Your task to perform on an android device: toggle javascript in the chrome app Image 0: 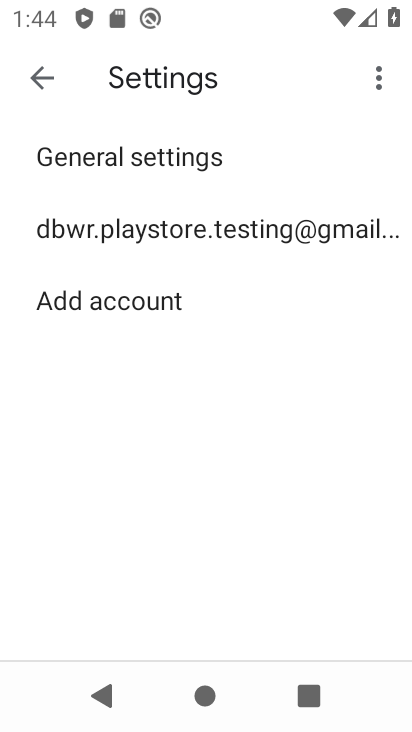
Step 0: press home button
Your task to perform on an android device: toggle javascript in the chrome app Image 1: 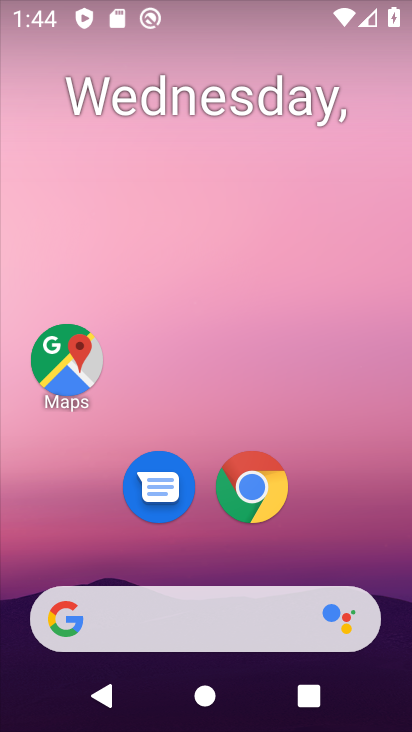
Step 1: click (265, 498)
Your task to perform on an android device: toggle javascript in the chrome app Image 2: 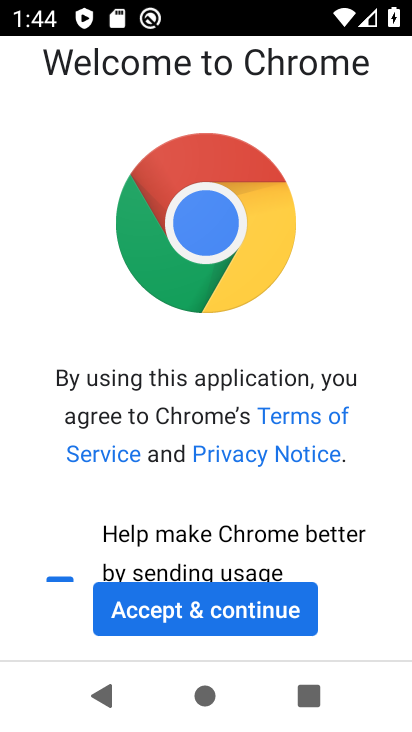
Step 2: click (273, 613)
Your task to perform on an android device: toggle javascript in the chrome app Image 3: 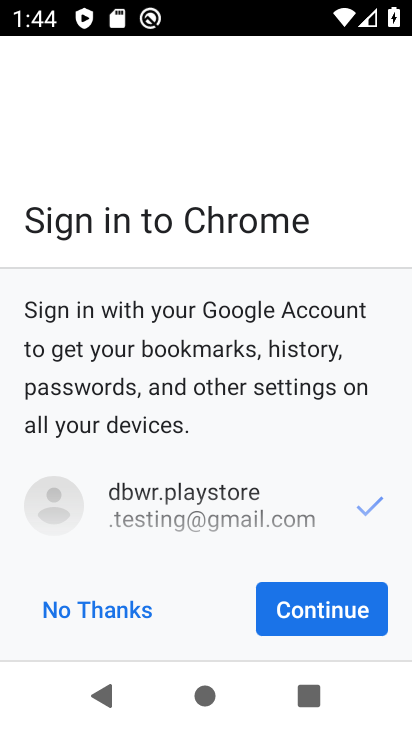
Step 3: click (273, 613)
Your task to perform on an android device: toggle javascript in the chrome app Image 4: 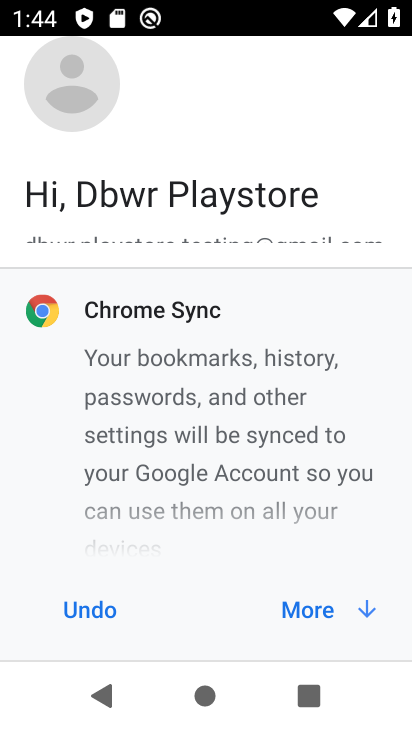
Step 4: click (294, 617)
Your task to perform on an android device: toggle javascript in the chrome app Image 5: 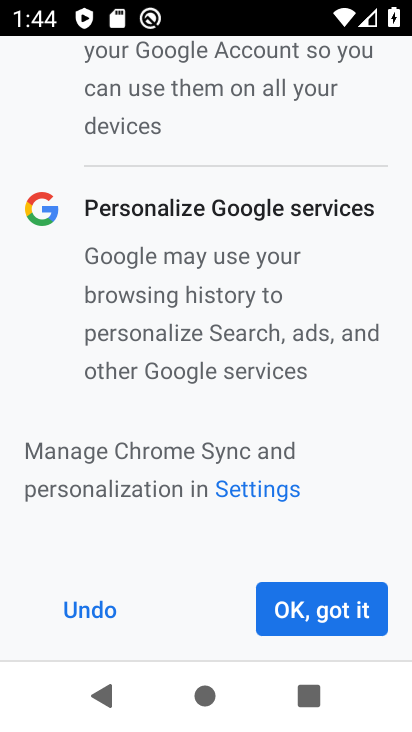
Step 5: click (294, 617)
Your task to perform on an android device: toggle javascript in the chrome app Image 6: 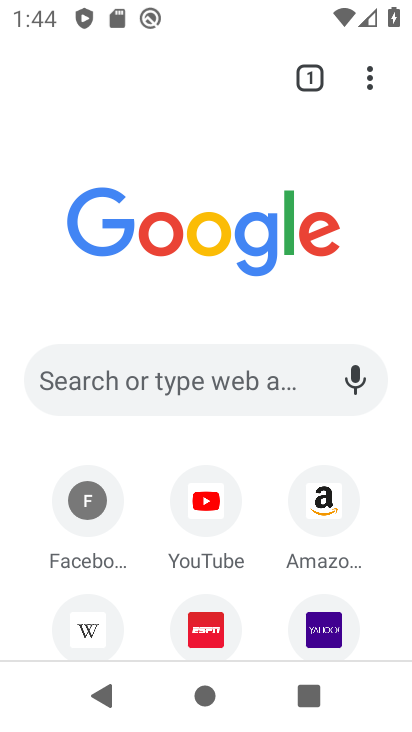
Step 6: drag from (375, 82) to (209, 545)
Your task to perform on an android device: toggle javascript in the chrome app Image 7: 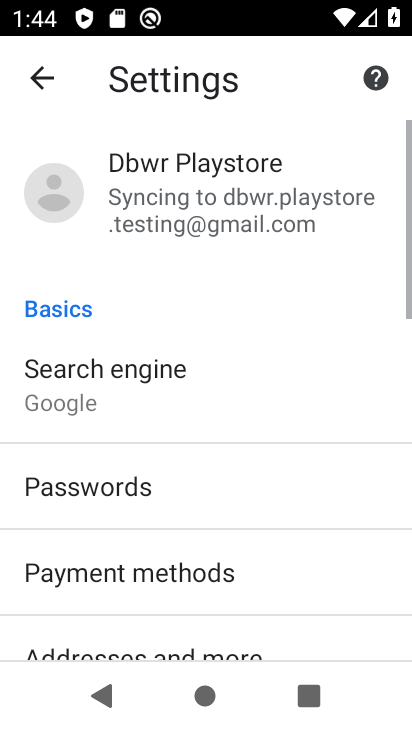
Step 7: drag from (211, 608) to (282, 127)
Your task to perform on an android device: toggle javascript in the chrome app Image 8: 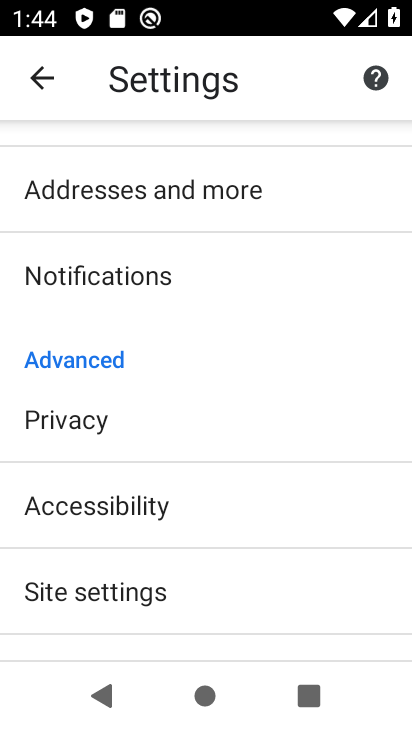
Step 8: click (144, 608)
Your task to perform on an android device: toggle javascript in the chrome app Image 9: 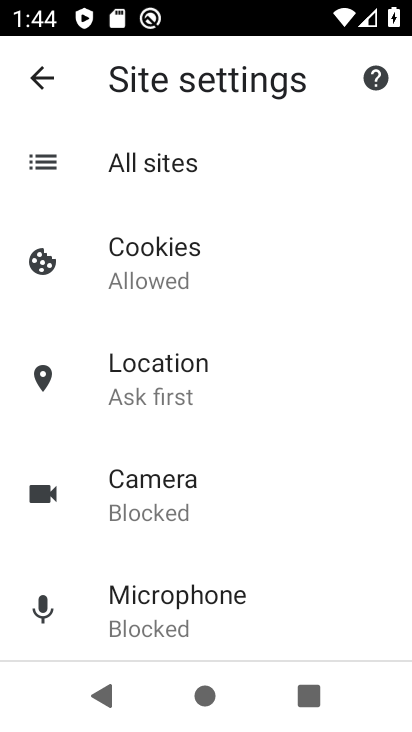
Step 9: drag from (260, 620) to (284, 334)
Your task to perform on an android device: toggle javascript in the chrome app Image 10: 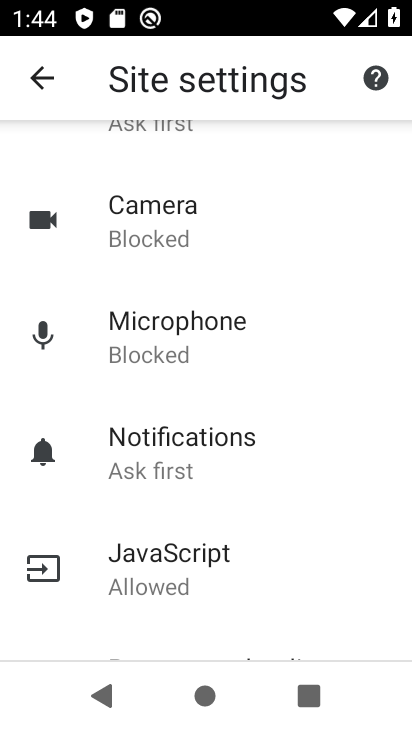
Step 10: click (219, 581)
Your task to perform on an android device: toggle javascript in the chrome app Image 11: 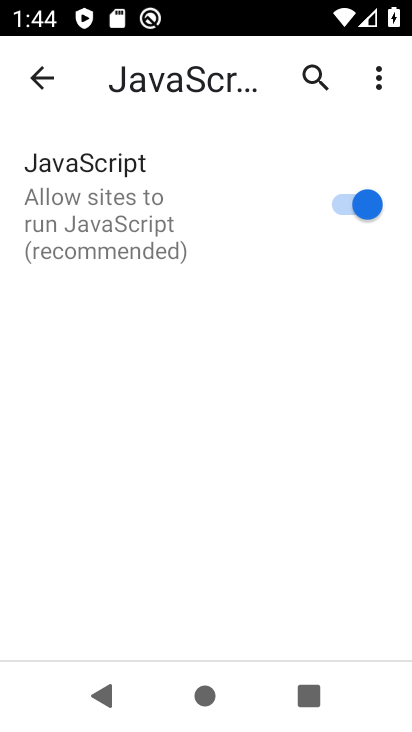
Step 11: click (343, 208)
Your task to perform on an android device: toggle javascript in the chrome app Image 12: 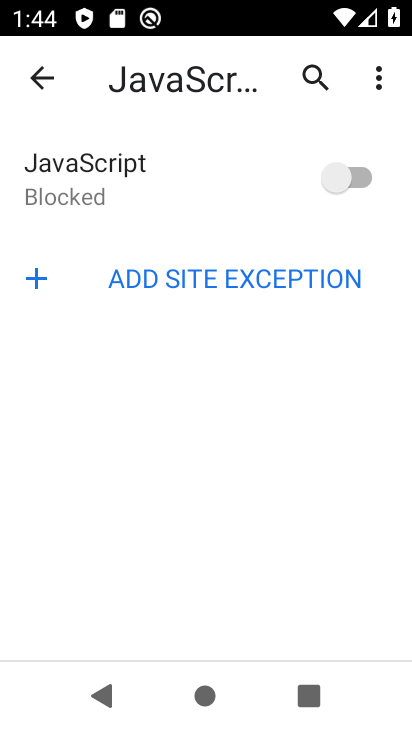
Step 12: task complete